Your task to perform on an android device: Open internet settings Image 0: 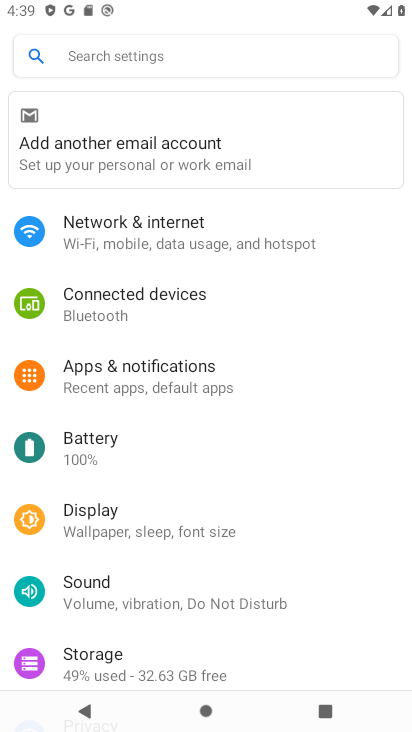
Step 0: click (125, 224)
Your task to perform on an android device: Open internet settings Image 1: 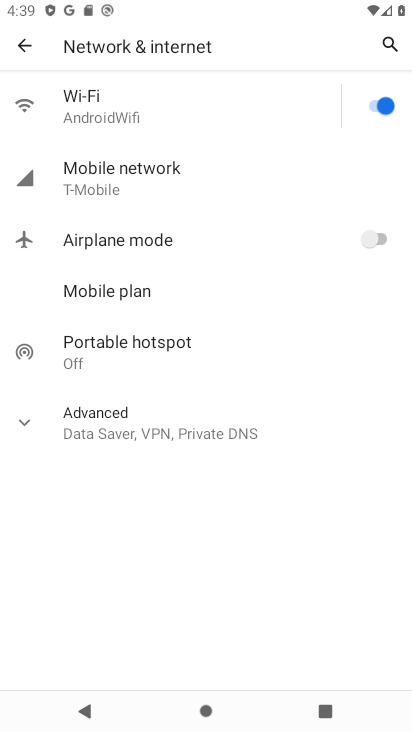
Step 1: click (100, 417)
Your task to perform on an android device: Open internet settings Image 2: 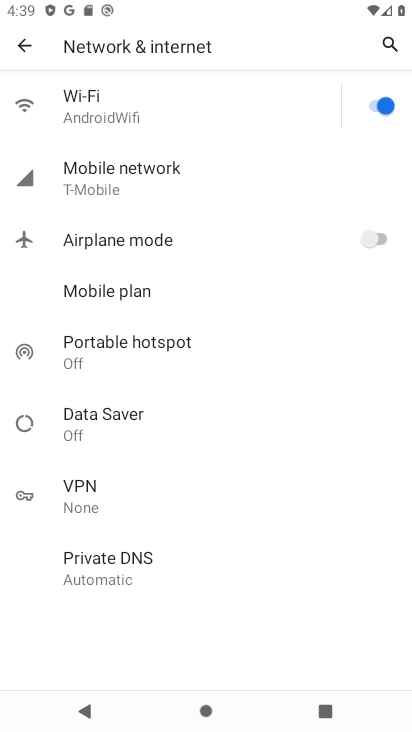
Step 2: task complete